Your task to perform on an android device: open wifi settings Image 0: 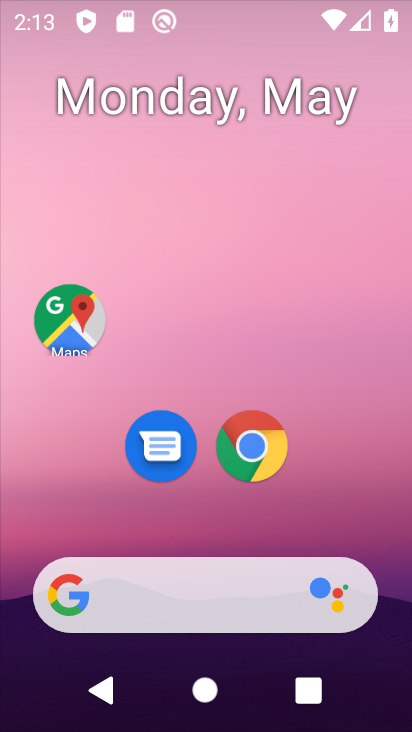
Step 0: drag from (348, 467) to (324, 198)
Your task to perform on an android device: open wifi settings Image 1: 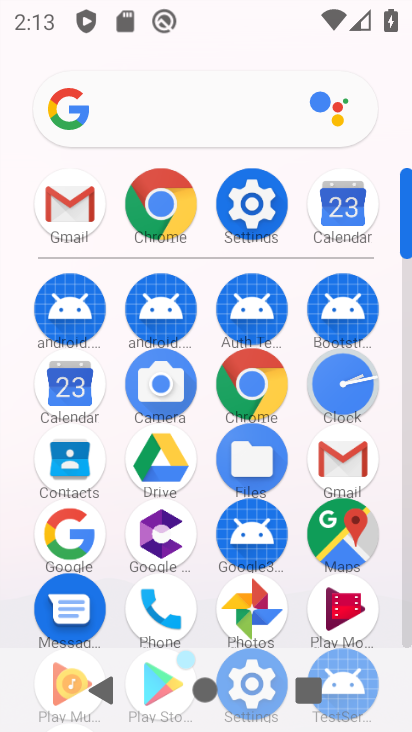
Step 1: drag from (283, 588) to (295, 221)
Your task to perform on an android device: open wifi settings Image 2: 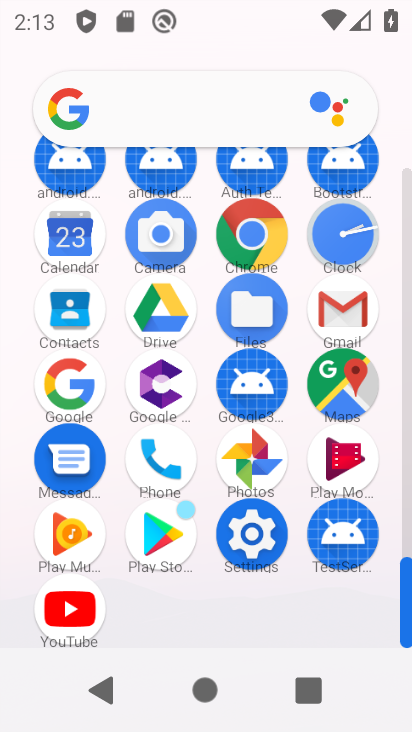
Step 2: click (244, 523)
Your task to perform on an android device: open wifi settings Image 3: 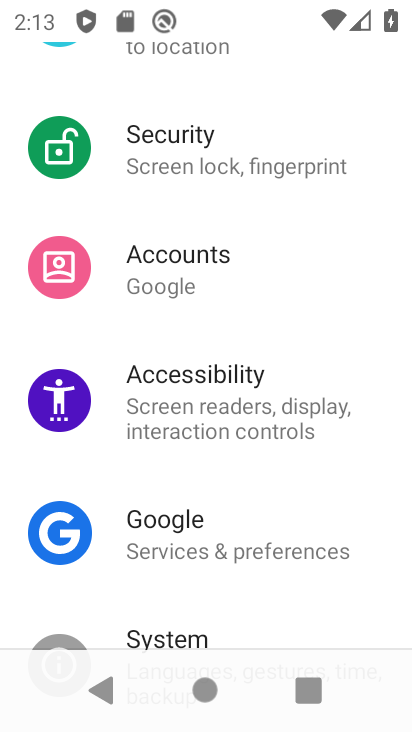
Step 3: drag from (161, 129) to (155, 606)
Your task to perform on an android device: open wifi settings Image 4: 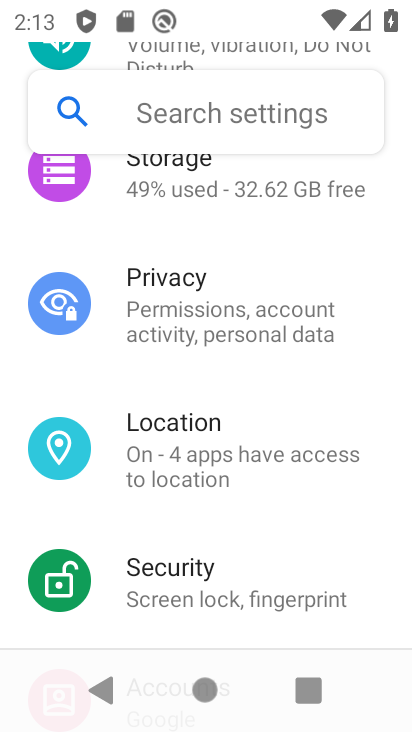
Step 4: drag from (229, 201) to (192, 528)
Your task to perform on an android device: open wifi settings Image 5: 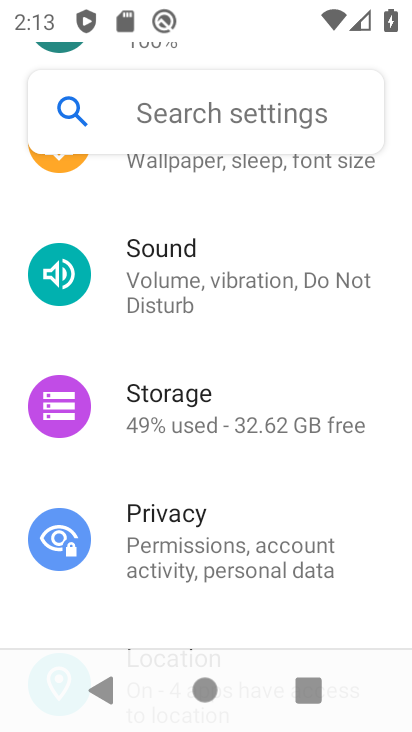
Step 5: drag from (205, 243) to (194, 650)
Your task to perform on an android device: open wifi settings Image 6: 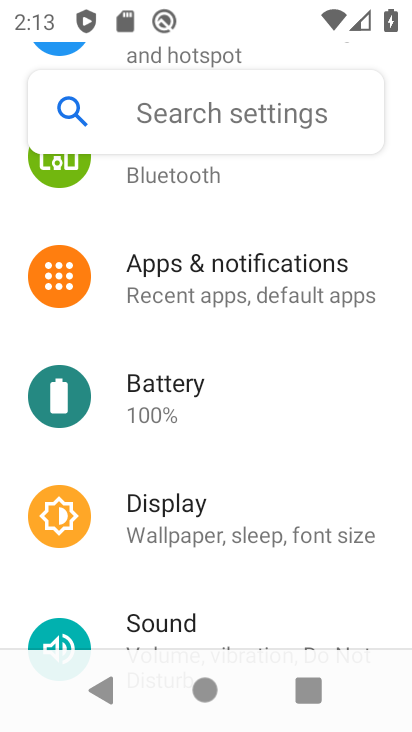
Step 6: drag from (219, 162) to (218, 425)
Your task to perform on an android device: open wifi settings Image 7: 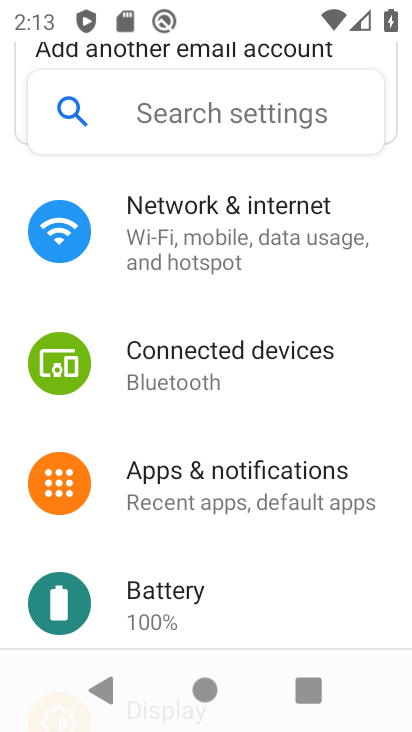
Step 7: click (232, 241)
Your task to perform on an android device: open wifi settings Image 8: 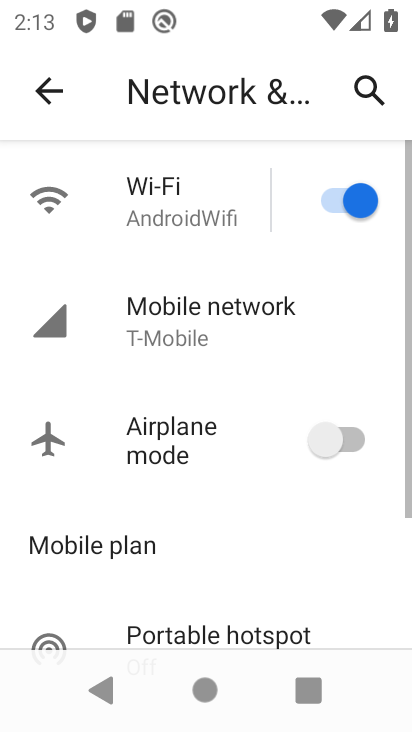
Step 8: click (180, 228)
Your task to perform on an android device: open wifi settings Image 9: 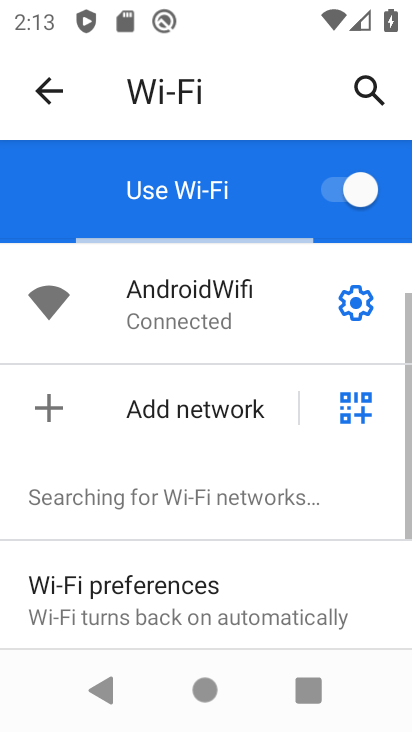
Step 9: click (354, 310)
Your task to perform on an android device: open wifi settings Image 10: 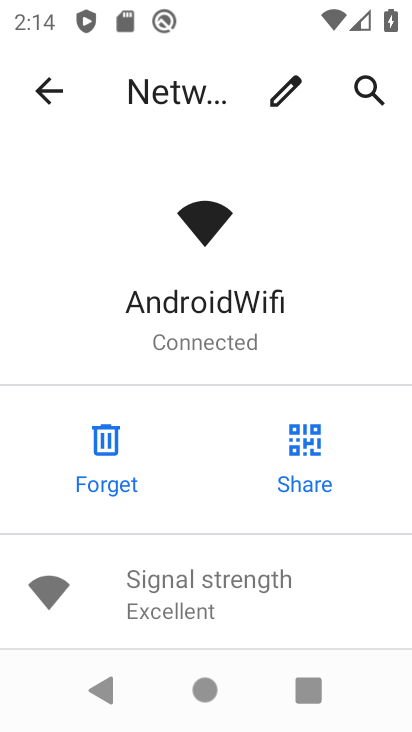
Step 10: task complete